Your task to perform on an android device: What's the weather going to be tomorrow? Image 0: 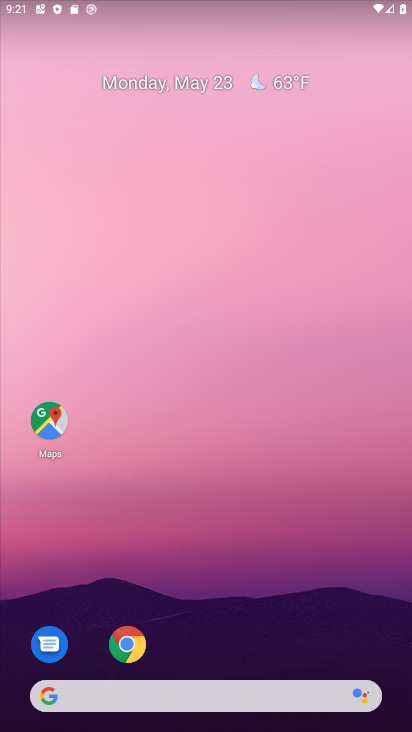
Step 0: drag from (203, 662) to (214, 614)
Your task to perform on an android device: What's the weather going to be tomorrow? Image 1: 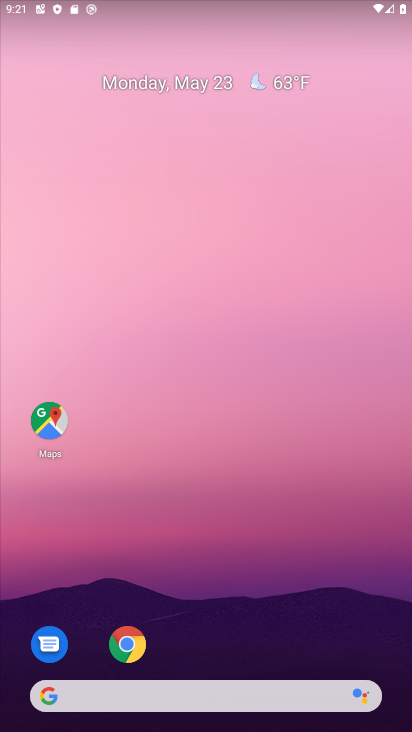
Step 1: click (283, 76)
Your task to perform on an android device: What's the weather going to be tomorrow? Image 2: 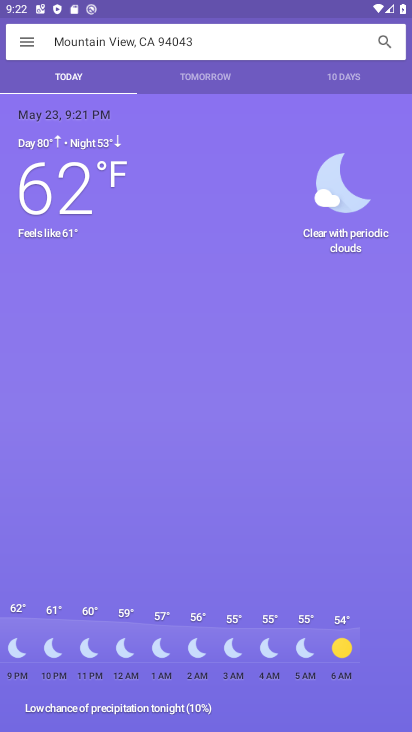
Step 2: click (200, 77)
Your task to perform on an android device: What's the weather going to be tomorrow? Image 3: 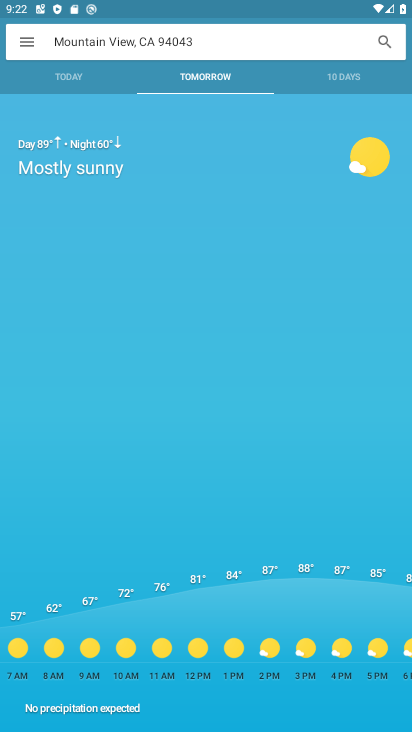
Step 3: task complete